Your task to perform on an android device: Search for "dell xps" on bestbuy, select the first entry, add it to the cart, then select checkout. Image 0: 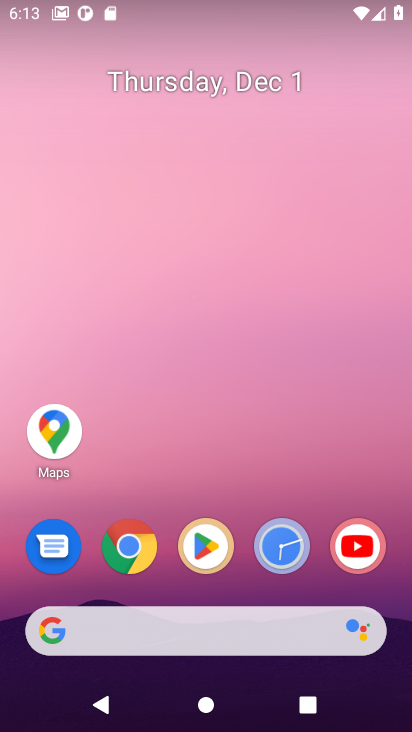
Step 0: click (134, 554)
Your task to perform on an android device: Search for "dell xps" on bestbuy, select the first entry, add it to the cart, then select checkout. Image 1: 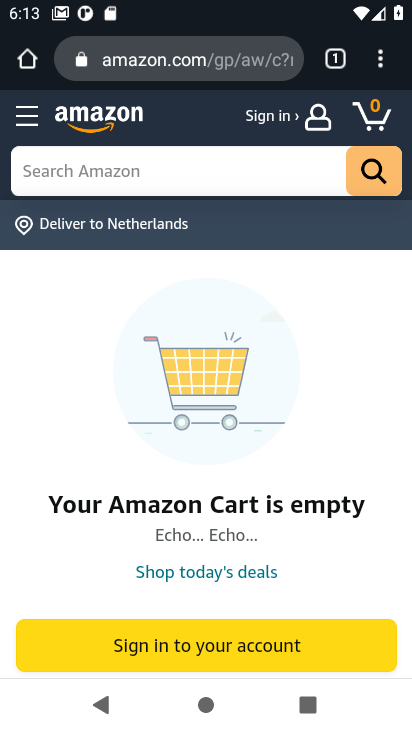
Step 1: click (152, 58)
Your task to perform on an android device: Search for "dell xps" on bestbuy, select the first entry, add it to the cart, then select checkout. Image 2: 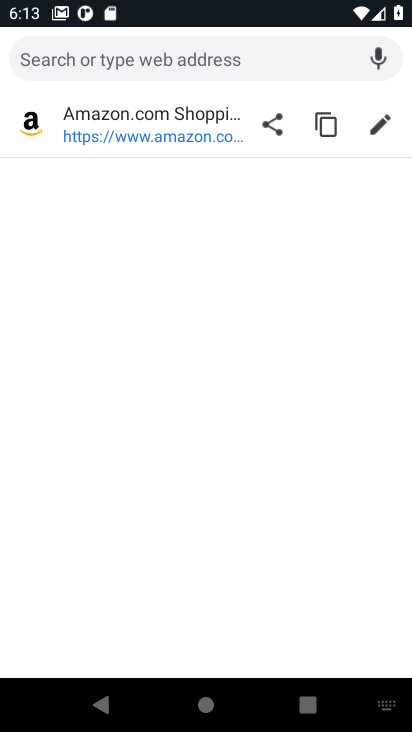
Step 2: type "bestbuy.com"
Your task to perform on an android device: Search for "dell xps" on bestbuy, select the first entry, add it to the cart, then select checkout. Image 3: 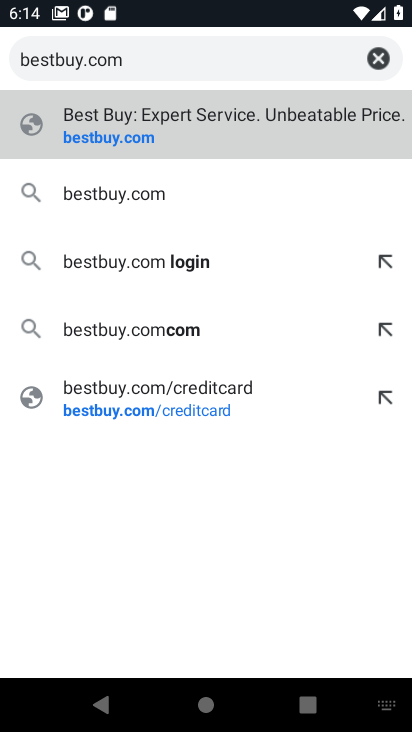
Step 3: click (77, 145)
Your task to perform on an android device: Search for "dell xps" on bestbuy, select the first entry, add it to the cart, then select checkout. Image 4: 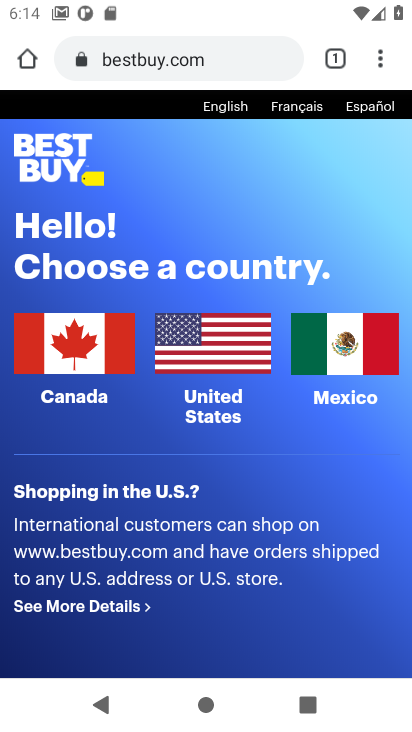
Step 4: click (199, 336)
Your task to perform on an android device: Search for "dell xps" on bestbuy, select the first entry, add it to the cart, then select checkout. Image 5: 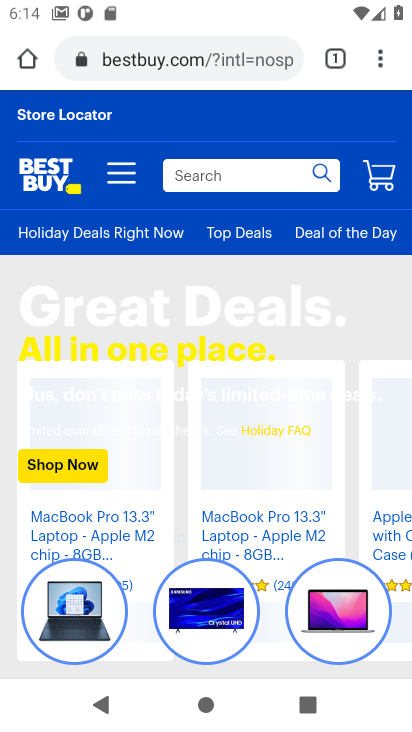
Step 5: click (183, 178)
Your task to perform on an android device: Search for "dell xps" on bestbuy, select the first entry, add it to the cart, then select checkout. Image 6: 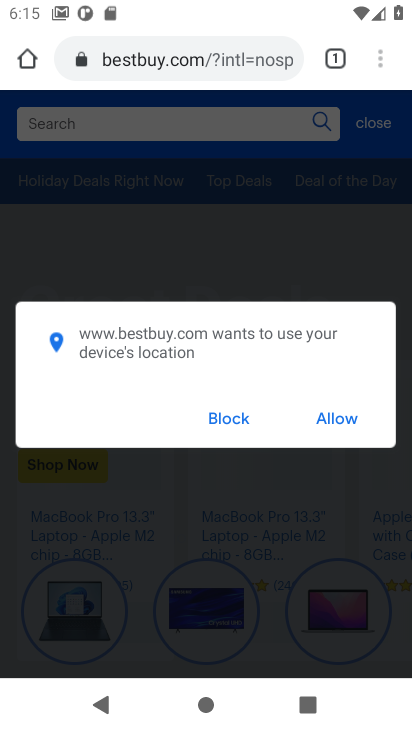
Step 6: click (243, 417)
Your task to perform on an android device: Search for "dell xps" on bestbuy, select the first entry, add it to the cart, then select checkout. Image 7: 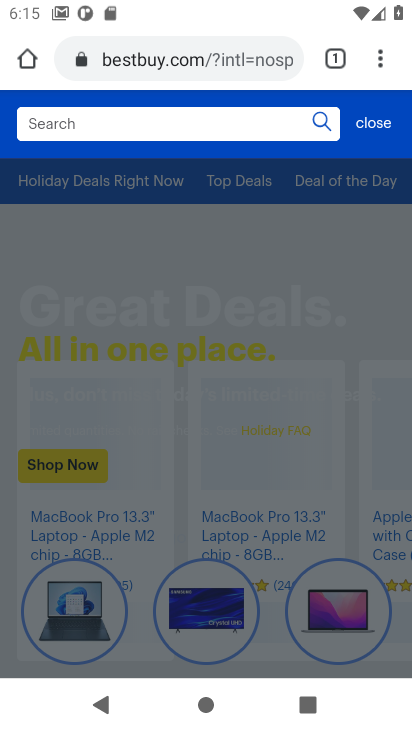
Step 7: click (83, 116)
Your task to perform on an android device: Search for "dell xps" on bestbuy, select the first entry, add it to the cart, then select checkout. Image 8: 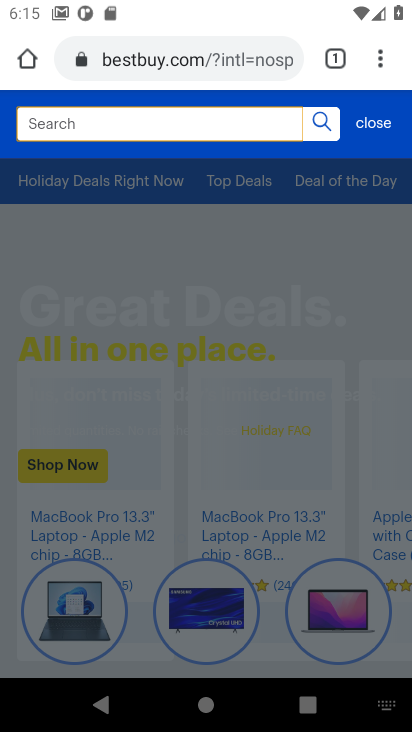
Step 8: type "dell xps"
Your task to perform on an android device: Search for "dell xps" on bestbuy, select the first entry, add it to the cart, then select checkout. Image 9: 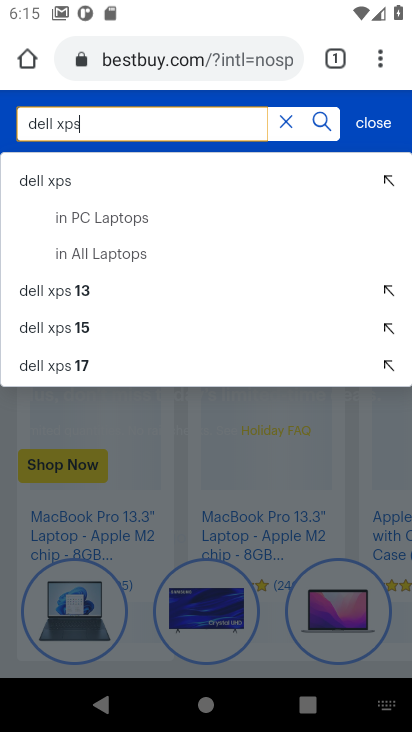
Step 9: click (62, 186)
Your task to perform on an android device: Search for "dell xps" on bestbuy, select the first entry, add it to the cart, then select checkout. Image 10: 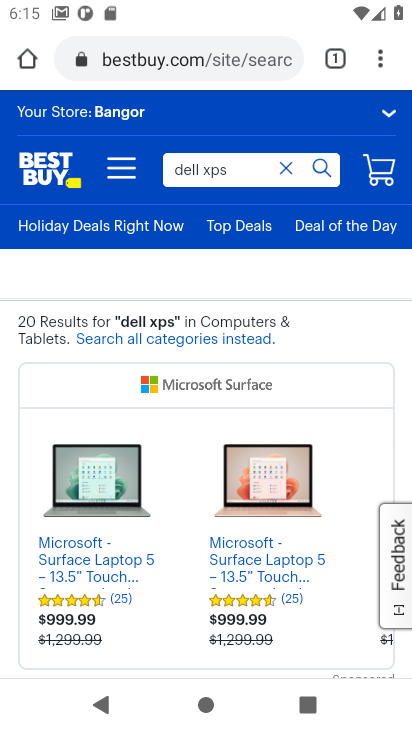
Step 10: drag from (197, 535) to (143, 236)
Your task to perform on an android device: Search for "dell xps" on bestbuy, select the first entry, add it to the cart, then select checkout. Image 11: 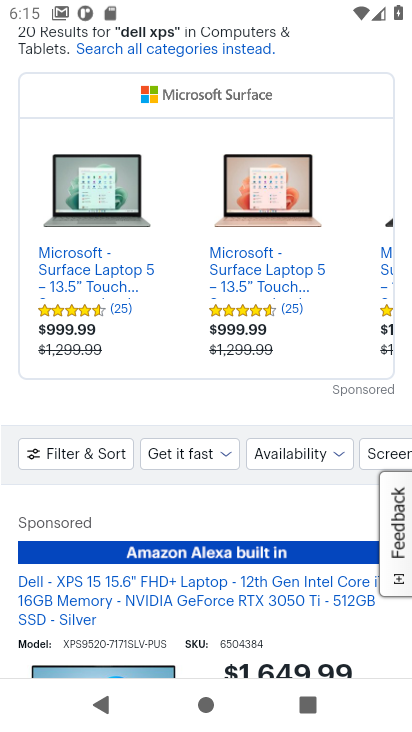
Step 11: drag from (134, 503) to (108, 255)
Your task to perform on an android device: Search for "dell xps" on bestbuy, select the first entry, add it to the cart, then select checkout. Image 12: 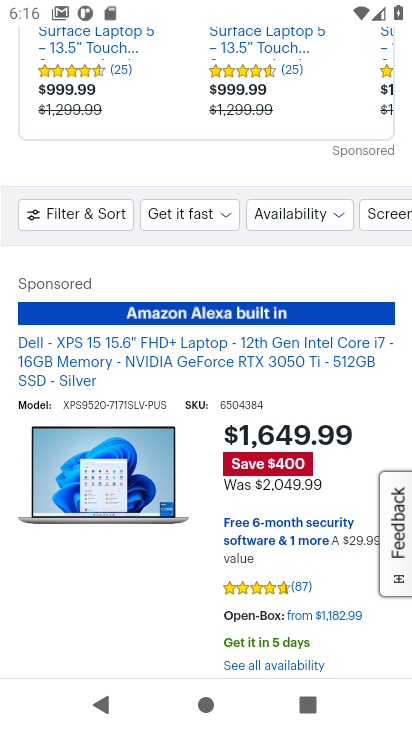
Step 12: click (146, 478)
Your task to perform on an android device: Search for "dell xps" on bestbuy, select the first entry, add it to the cart, then select checkout. Image 13: 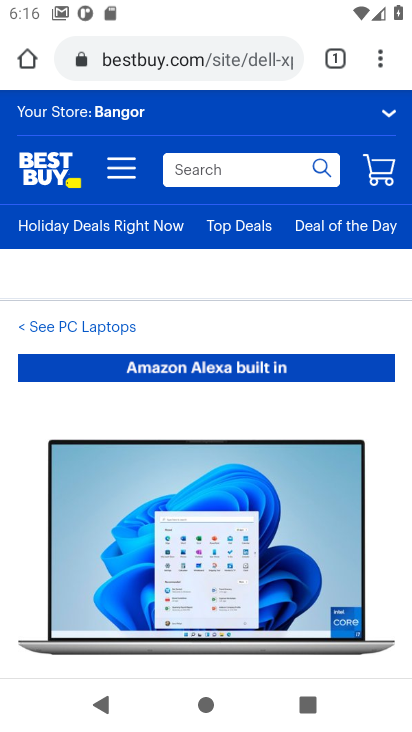
Step 13: drag from (222, 573) to (184, 194)
Your task to perform on an android device: Search for "dell xps" on bestbuy, select the first entry, add it to the cart, then select checkout. Image 14: 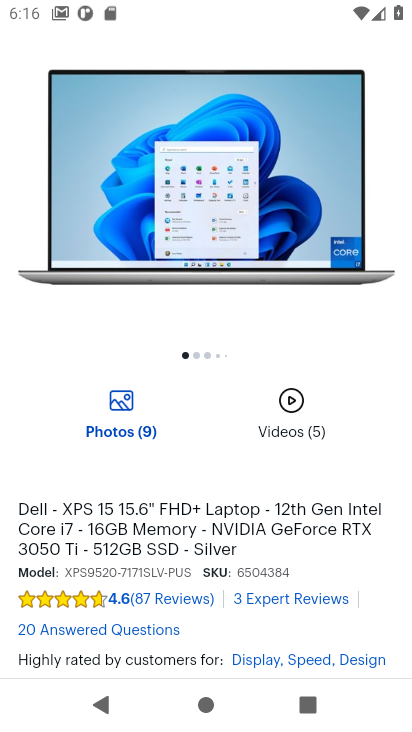
Step 14: drag from (183, 494) to (159, 154)
Your task to perform on an android device: Search for "dell xps" on bestbuy, select the first entry, add it to the cart, then select checkout. Image 15: 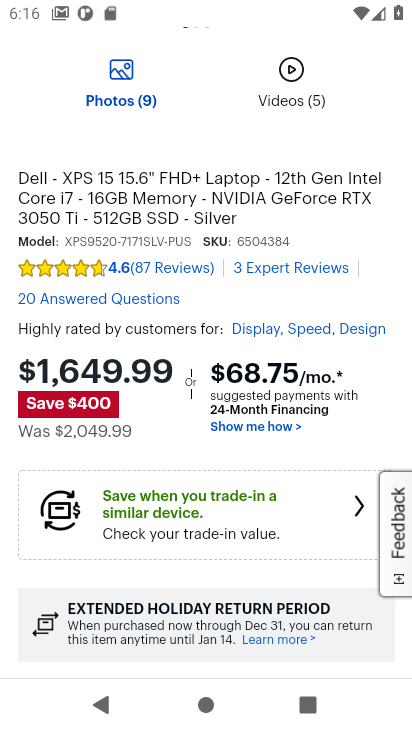
Step 15: drag from (161, 492) to (153, 204)
Your task to perform on an android device: Search for "dell xps" on bestbuy, select the first entry, add it to the cart, then select checkout. Image 16: 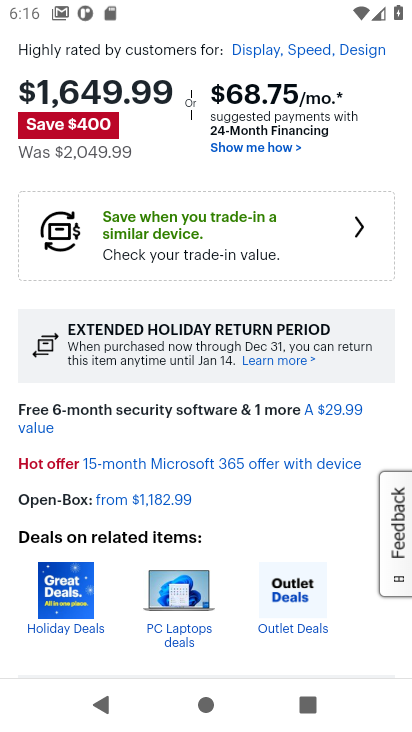
Step 16: drag from (180, 469) to (160, 160)
Your task to perform on an android device: Search for "dell xps" on bestbuy, select the first entry, add it to the cart, then select checkout. Image 17: 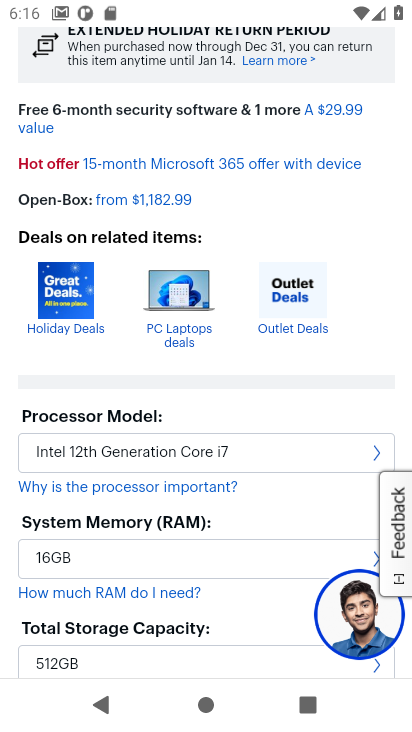
Step 17: drag from (179, 408) to (173, 178)
Your task to perform on an android device: Search for "dell xps" on bestbuy, select the first entry, add it to the cart, then select checkout. Image 18: 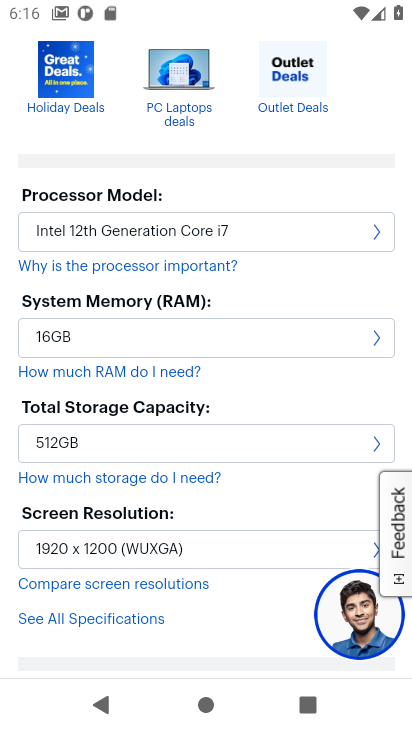
Step 18: drag from (146, 475) to (157, 188)
Your task to perform on an android device: Search for "dell xps" on bestbuy, select the first entry, add it to the cart, then select checkout. Image 19: 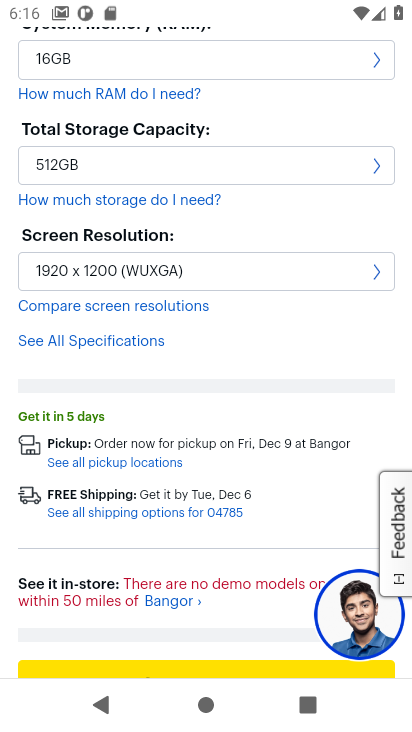
Step 19: drag from (130, 578) to (125, 367)
Your task to perform on an android device: Search for "dell xps" on bestbuy, select the first entry, add it to the cart, then select checkout. Image 20: 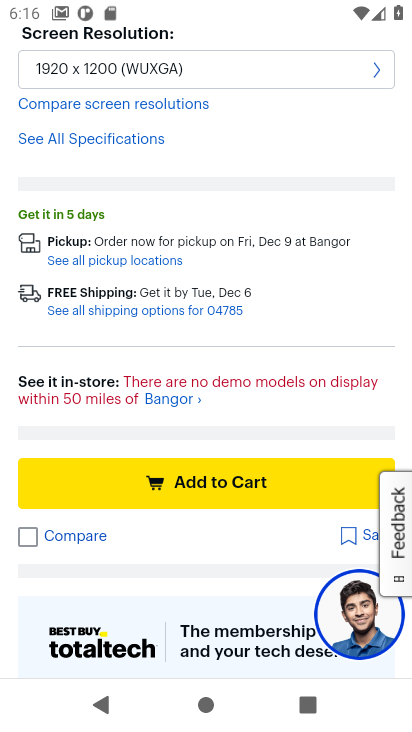
Step 20: click (165, 482)
Your task to perform on an android device: Search for "dell xps" on bestbuy, select the first entry, add it to the cart, then select checkout. Image 21: 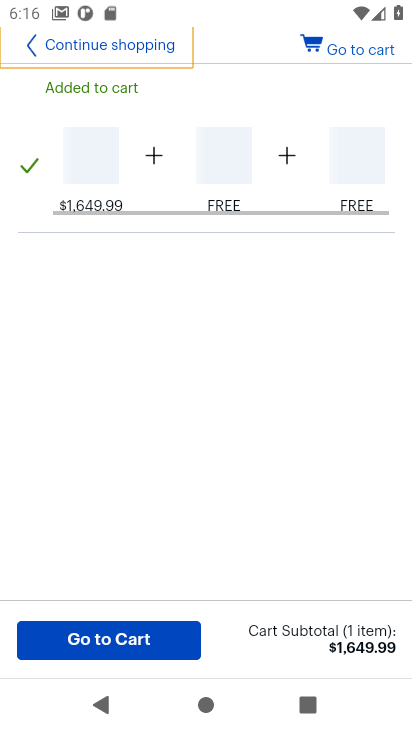
Step 21: click (350, 51)
Your task to perform on an android device: Search for "dell xps" on bestbuy, select the first entry, add it to the cart, then select checkout. Image 22: 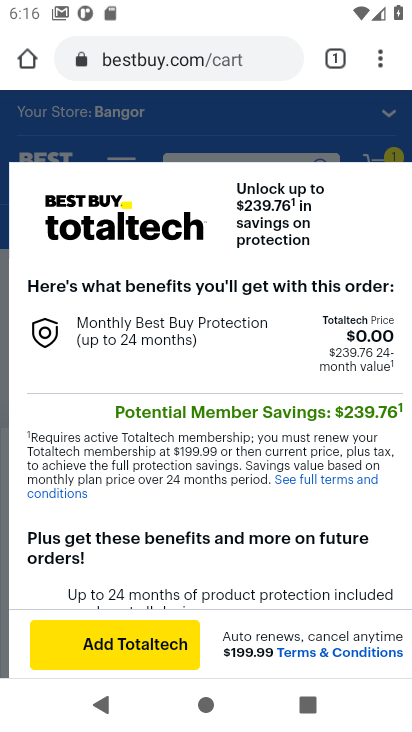
Step 22: drag from (191, 474) to (179, 163)
Your task to perform on an android device: Search for "dell xps" on bestbuy, select the first entry, add it to the cart, then select checkout. Image 23: 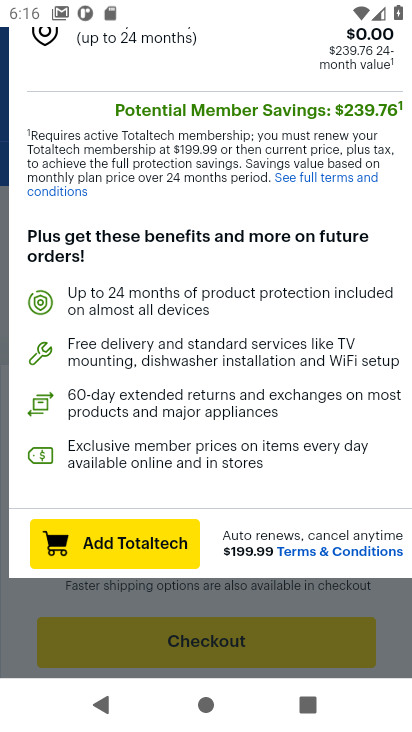
Step 23: click (245, 636)
Your task to perform on an android device: Search for "dell xps" on bestbuy, select the first entry, add it to the cart, then select checkout. Image 24: 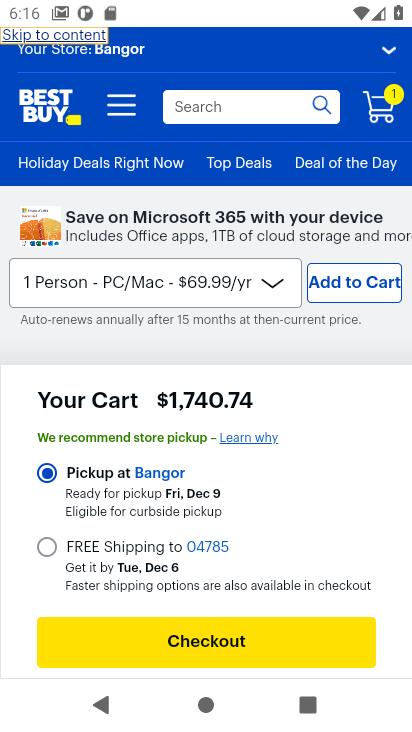
Step 24: click (233, 640)
Your task to perform on an android device: Search for "dell xps" on bestbuy, select the first entry, add it to the cart, then select checkout. Image 25: 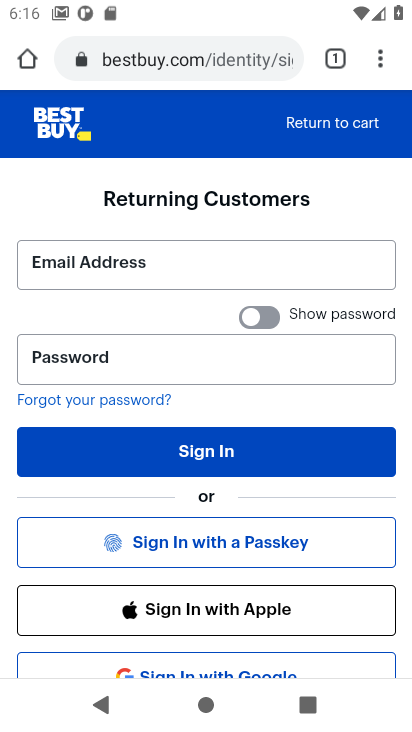
Step 25: task complete